Your task to perform on an android device: add a label to a message in the gmail app Image 0: 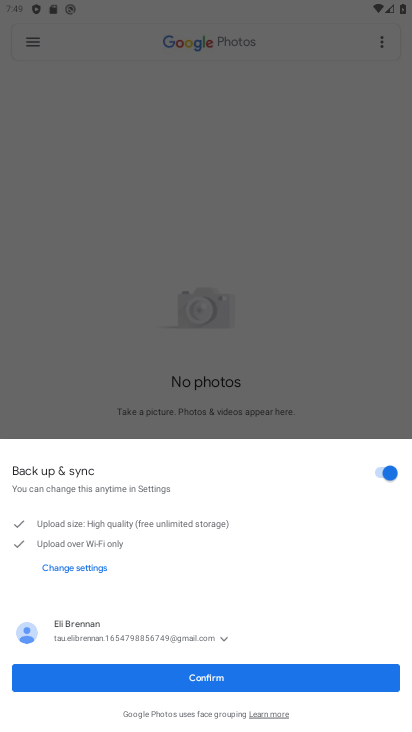
Step 0: press home button
Your task to perform on an android device: add a label to a message in the gmail app Image 1: 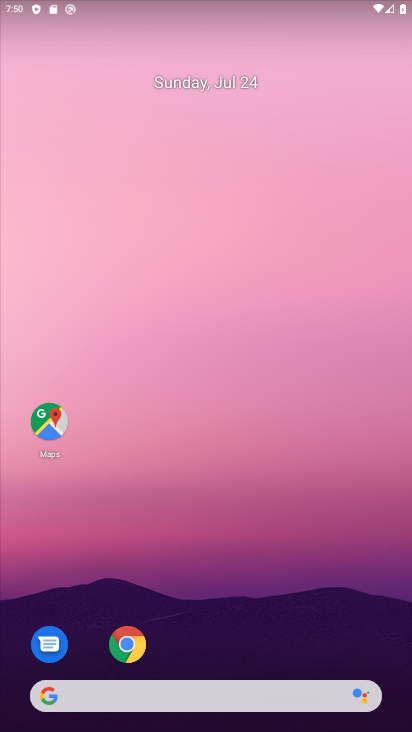
Step 1: drag from (279, 683) to (257, 162)
Your task to perform on an android device: add a label to a message in the gmail app Image 2: 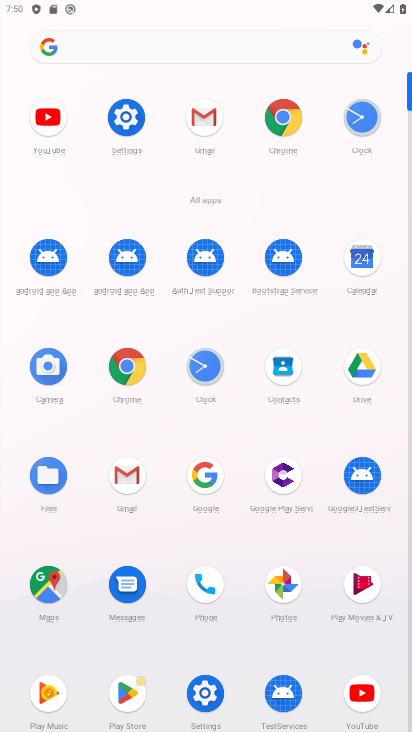
Step 2: click (126, 466)
Your task to perform on an android device: add a label to a message in the gmail app Image 3: 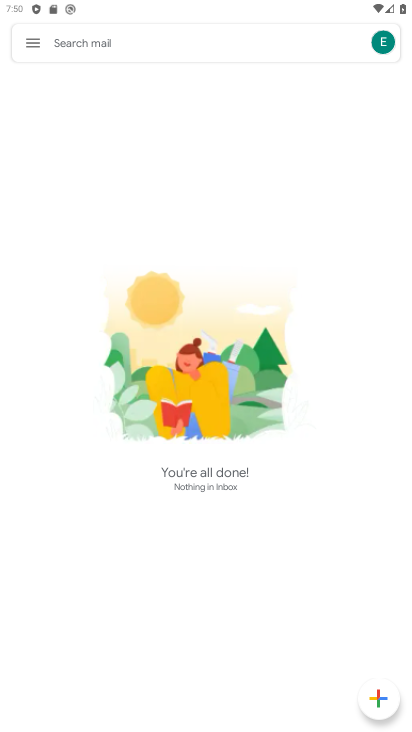
Step 3: task complete